Your task to perform on an android device: turn off notifications in google photos Image 0: 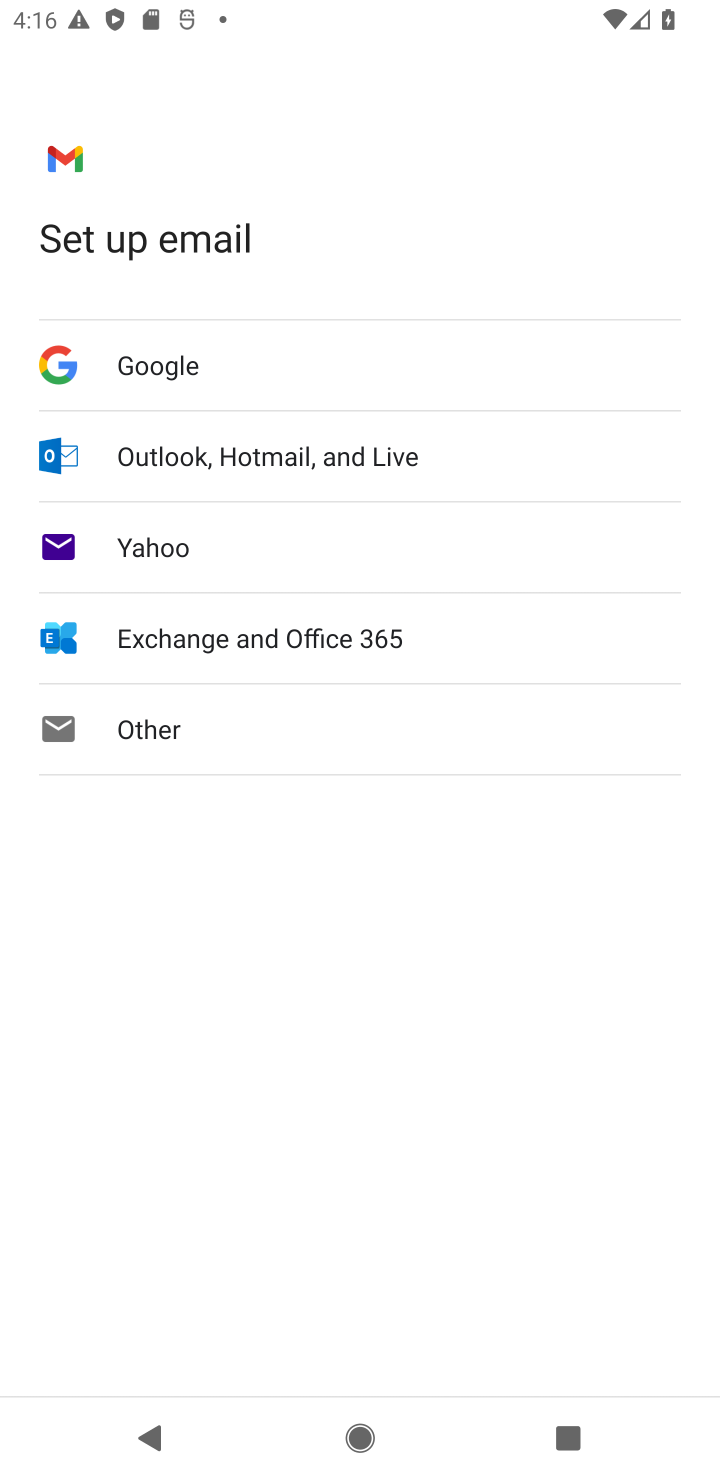
Step 0: press back button
Your task to perform on an android device: turn off notifications in google photos Image 1: 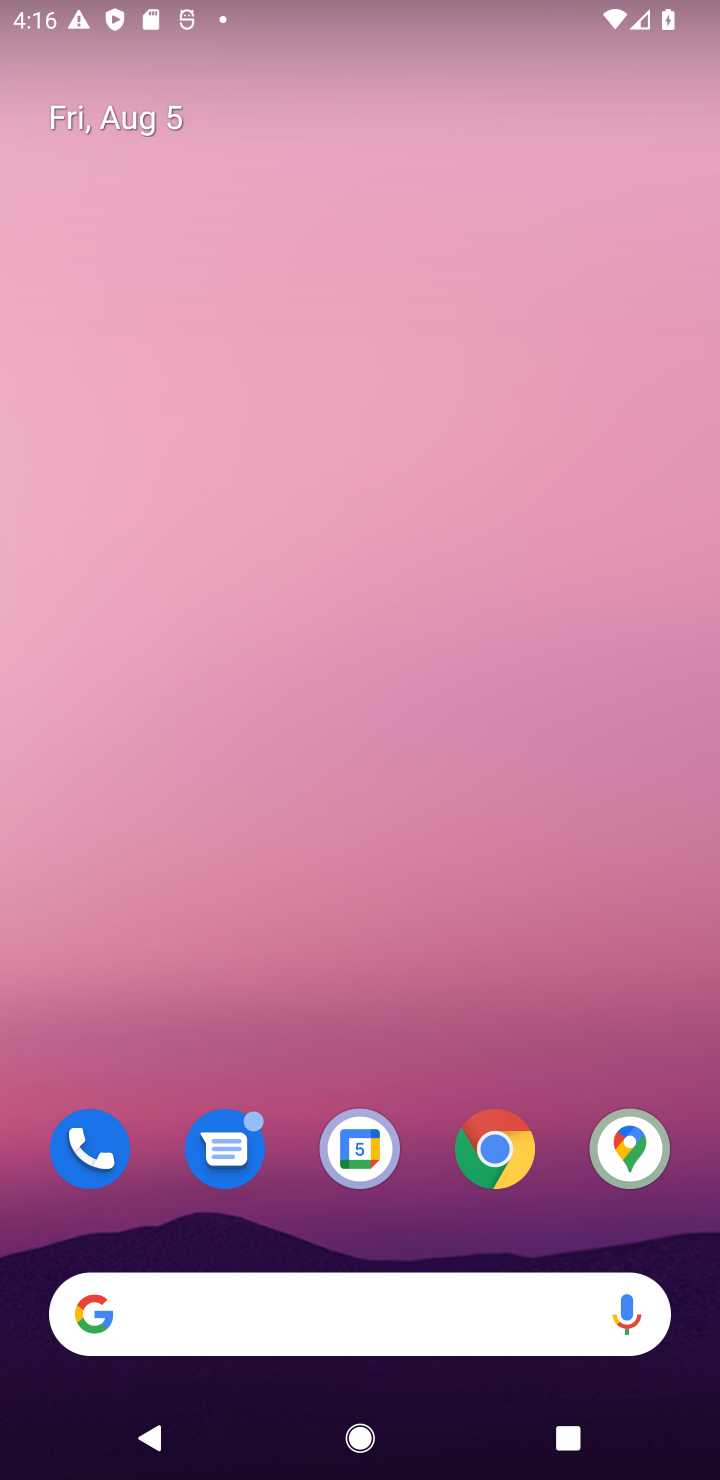
Step 1: drag from (338, 1265) to (425, 44)
Your task to perform on an android device: turn off notifications in google photos Image 2: 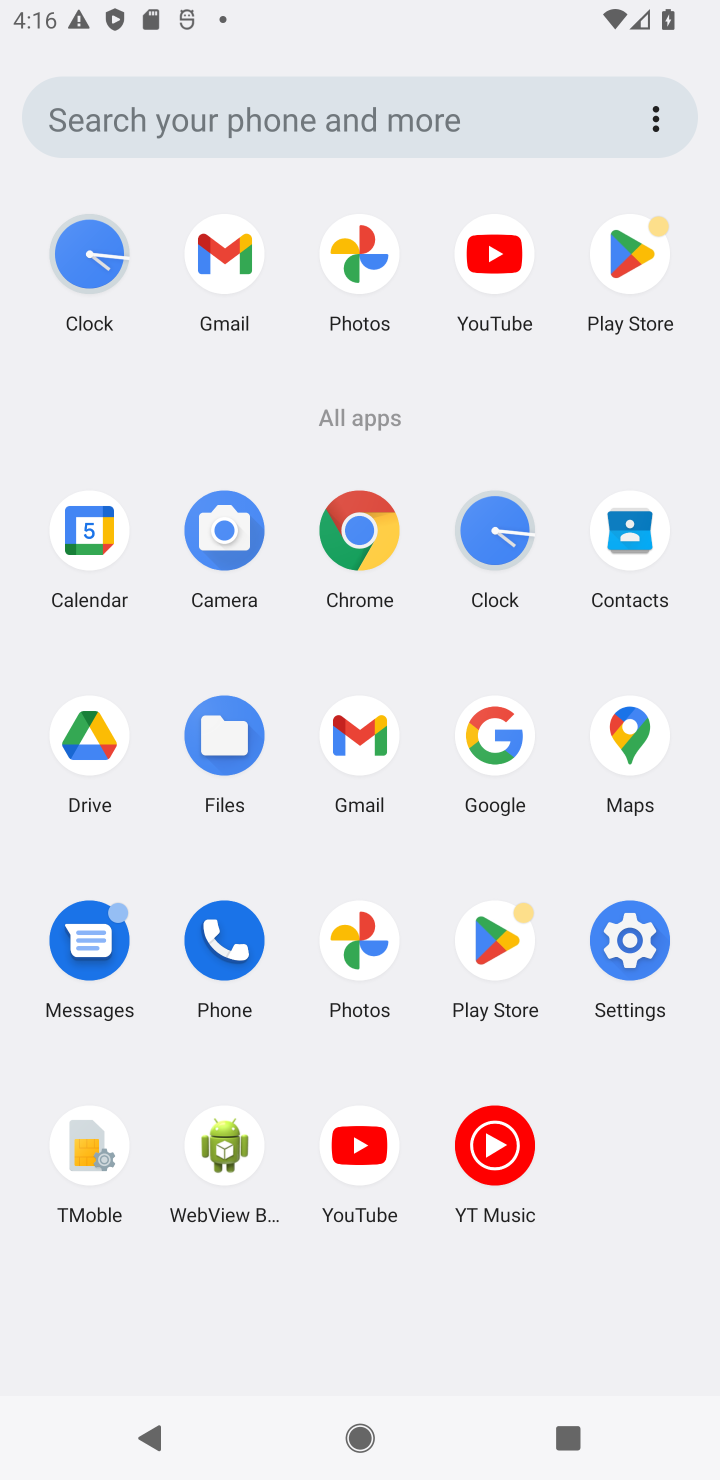
Step 2: click (360, 946)
Your task to perform on an android device: turn off notifications in google photos Image 3: 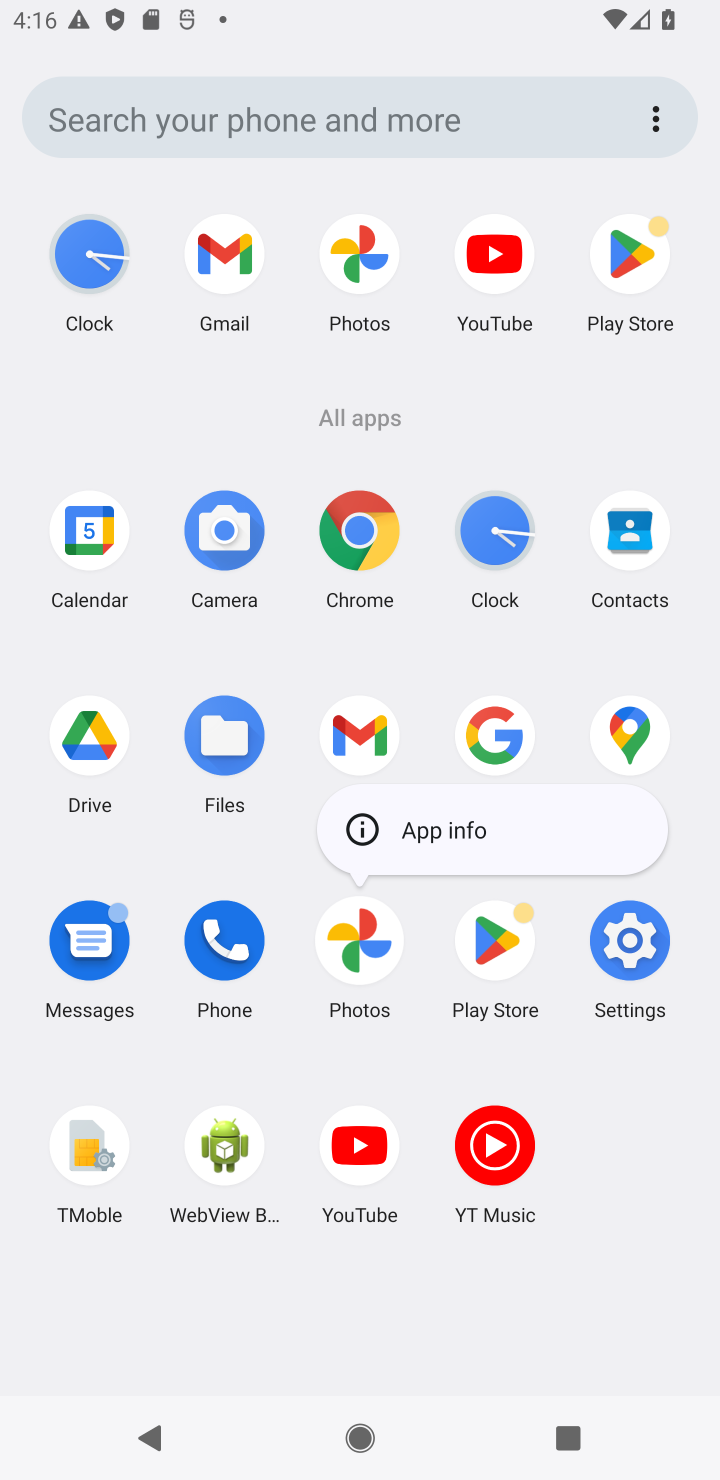
Step 3: click (389, 825)
Your task to perform on an android device: turn off notifications in google photos Image 4: 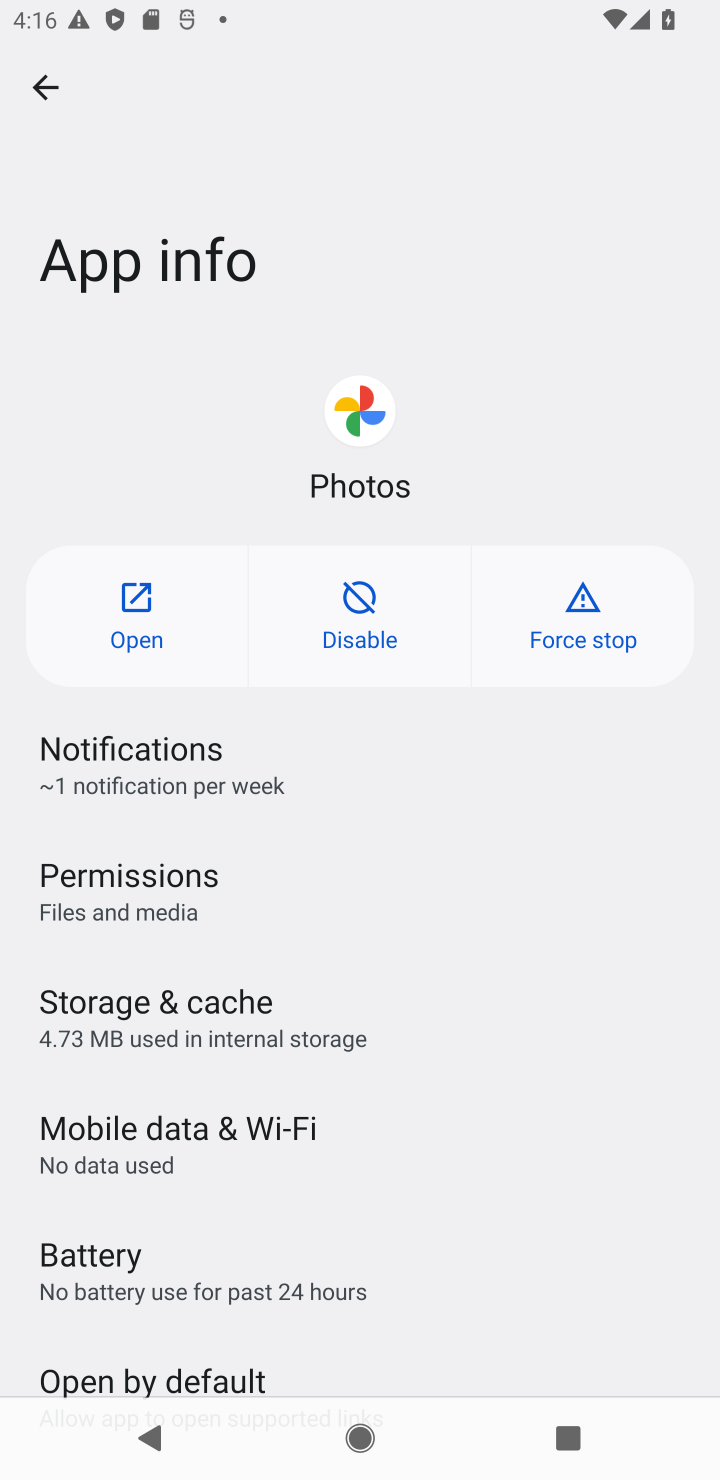
Step 4: click (224, 738)
Your task to perform on an android device: turn off notifications in google photos Image 5: 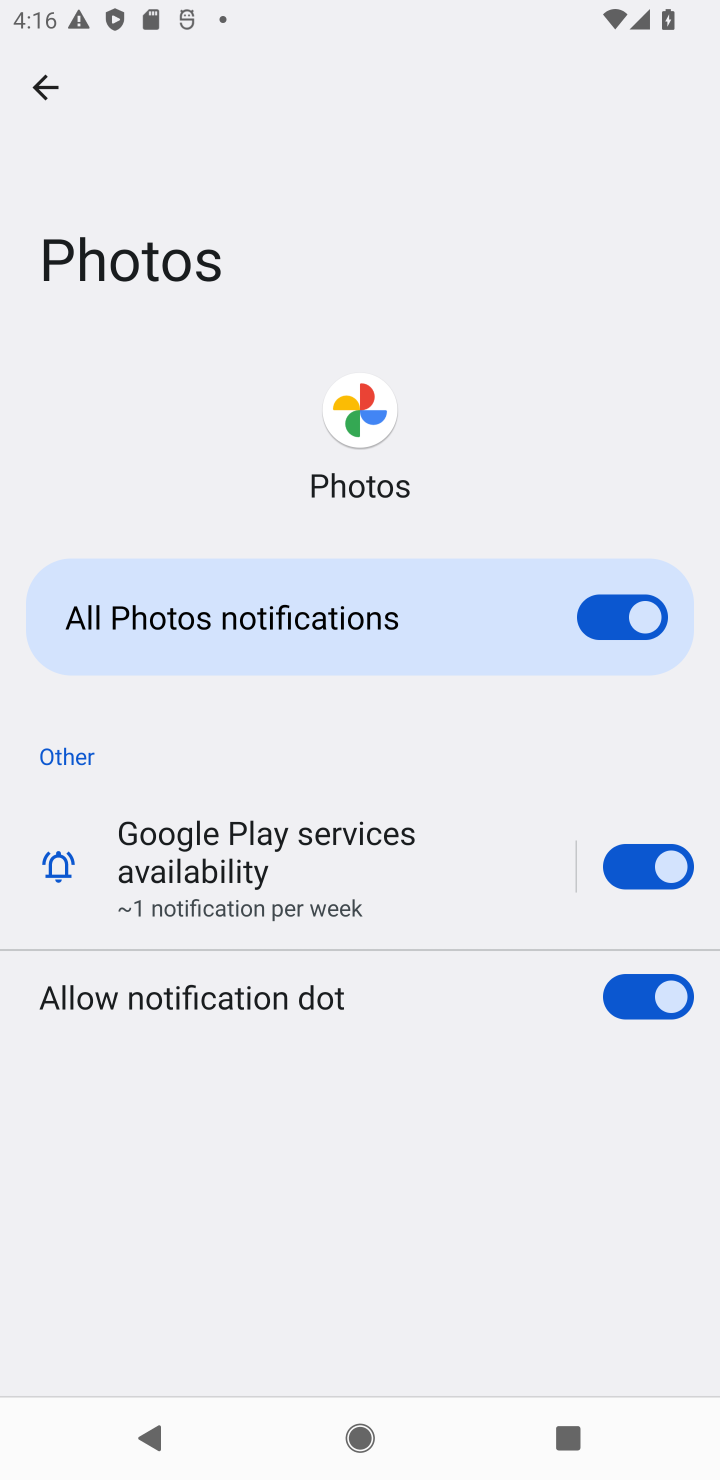
Step 5: click (640, 622)
Your task to perform on an android device: turn off notifications in google photos Image 6: 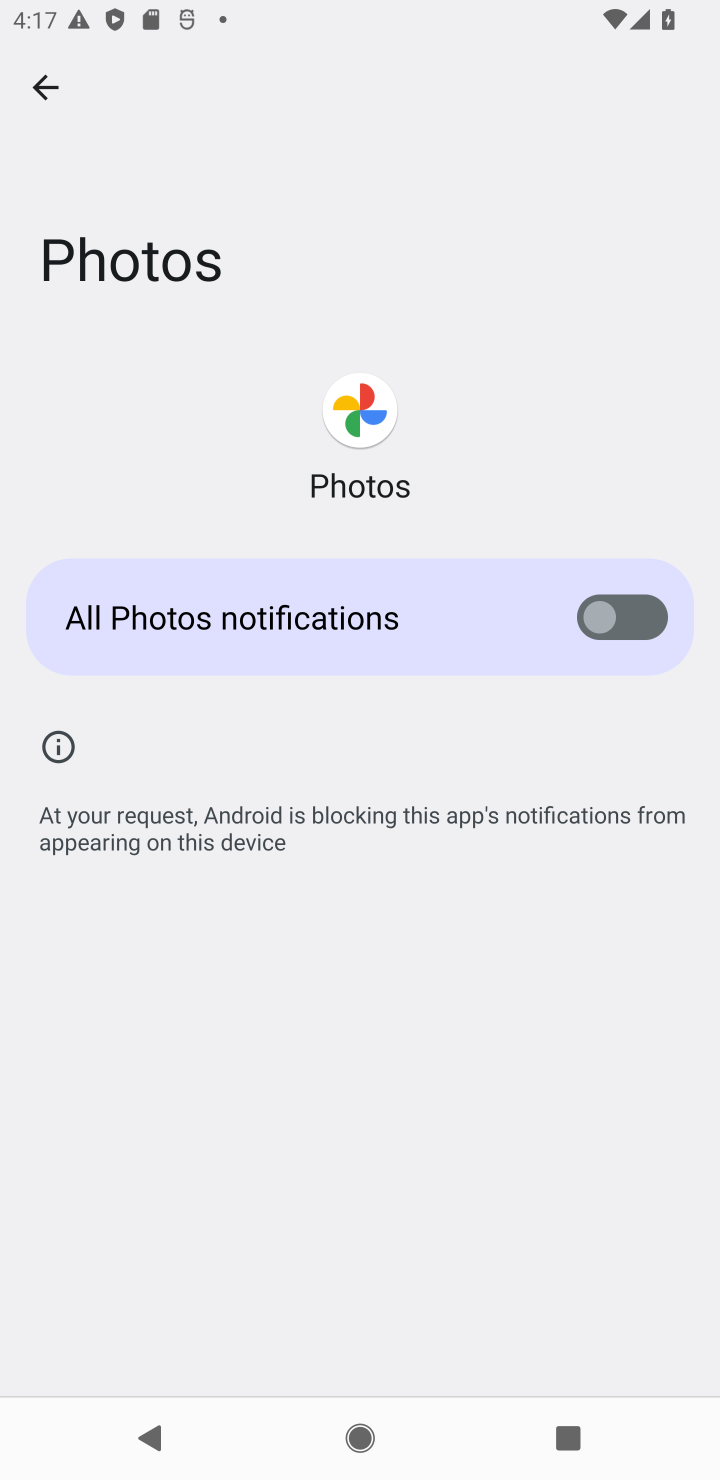
Step 6: task complete